Your task to perform on an android device: Open location settings Image 0: 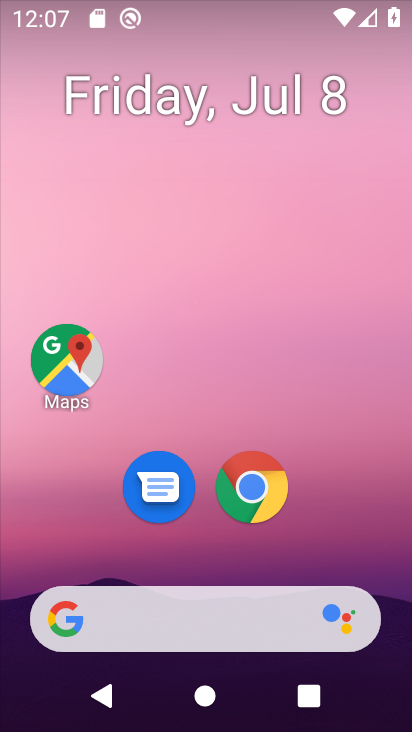
Step 0: drag from (376, 532) to (395, 95)
Your task to perform on an android device: Open location settings Image 1: 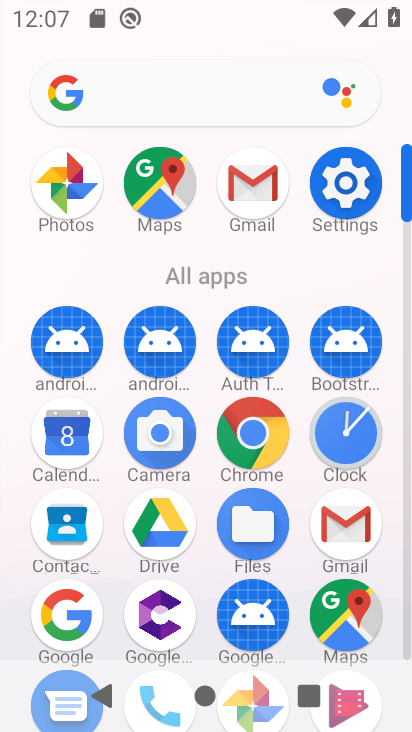
Step 1: click (344, 189)
Your task to perform on an android device: Open location settings Image 2: 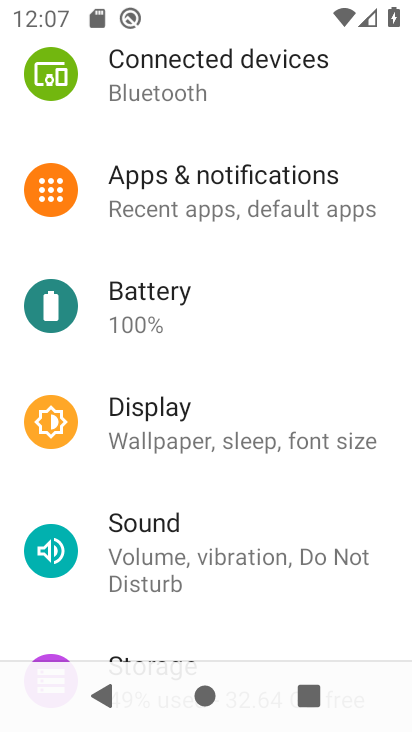
Step 2: drag from (367, 159) to (375, 301)
Your task to perform on an android device: Open location settings Image 3: 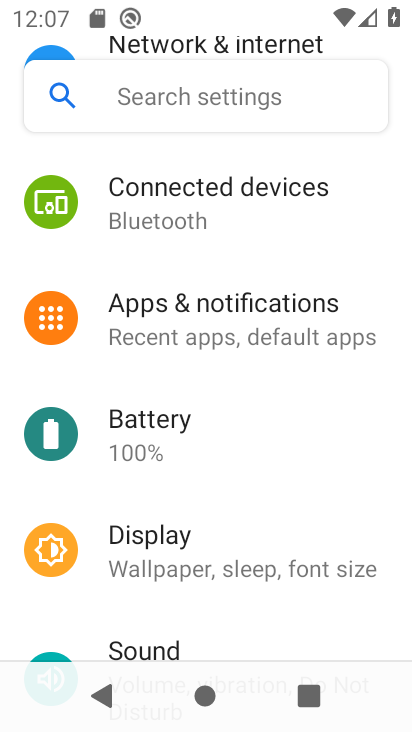
Step 3: drag from (375, 185) to (358, 400)
Your task to perform on an android device: Open location settings Image 4: 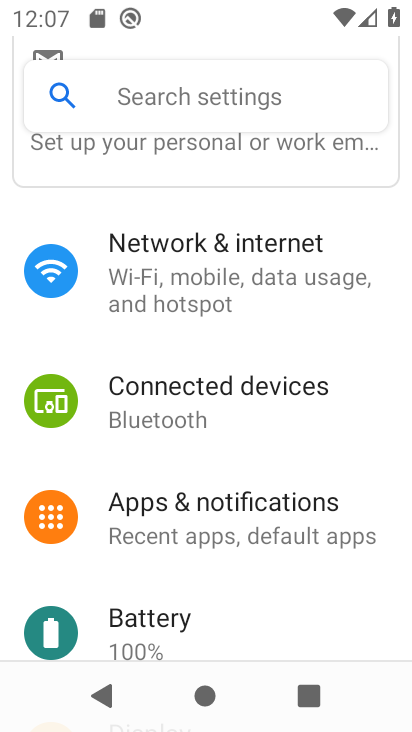
Step 4: drag from (358, 436) to (366, 318)
Your task to perform on an android device: Open location settings Image 5: 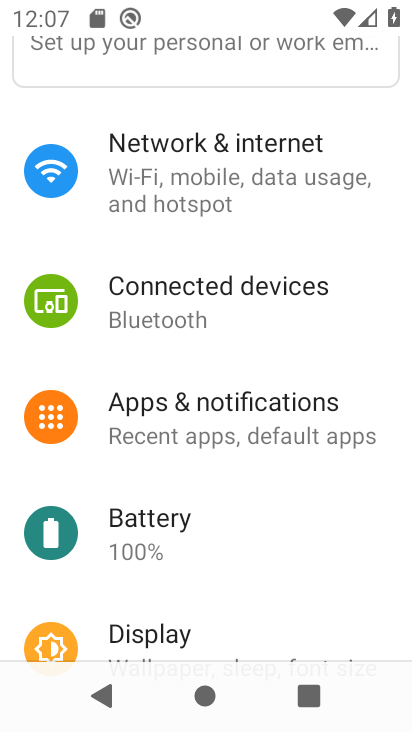
Step 5: drag from (343, 556) to (367, 375)
Your task to perform on an android device: Open location settings Image 6: 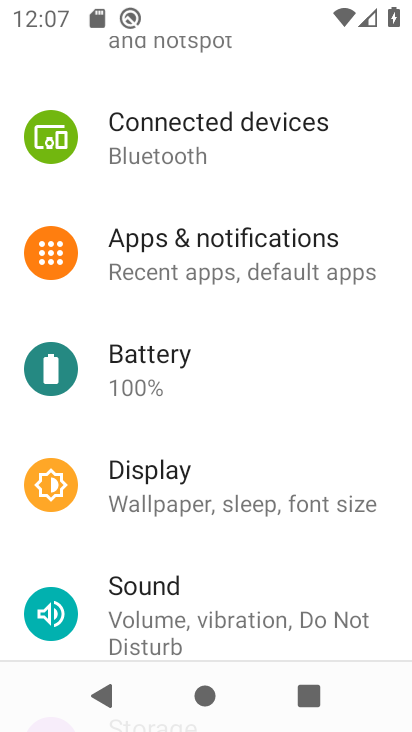
Step 6: drag from (378, 548) to (380, 391)
Your task to perform on an android device: Open location settings Image 7: 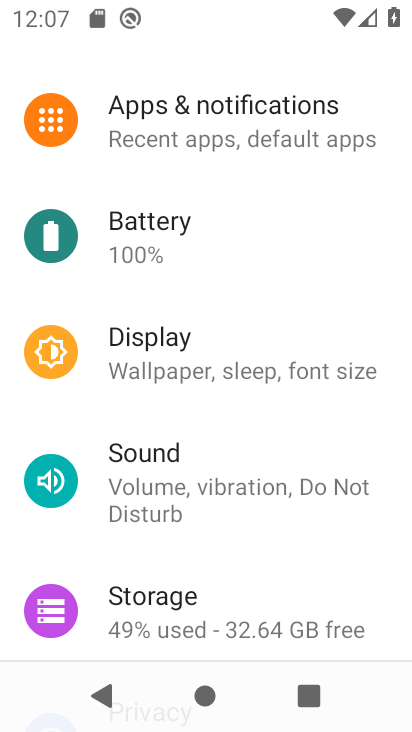
Step 7: drag from (374, 554) to (390, 417)
Your task to perform on an android device: Open location settings Image 8: 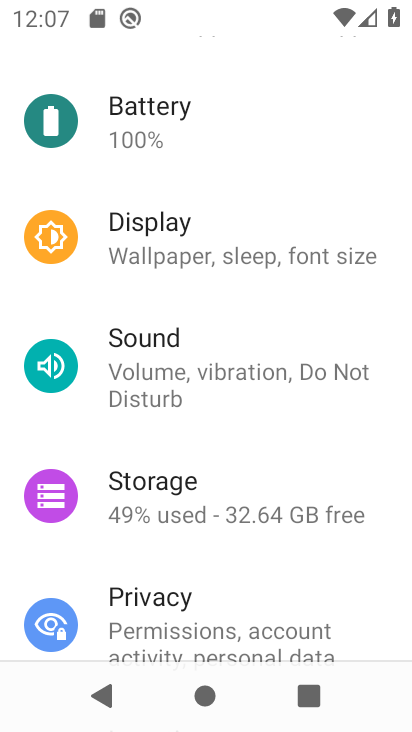
Step 8: drag from (373, 576) to (376, 423)
Your task to perform on an android device: Open location settings Image 9: 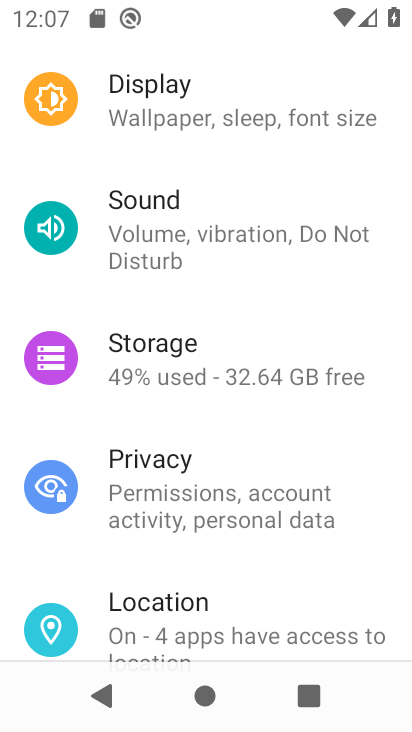
Step 9: drag from (373, 580) to (372, 417)
Your task to perform on an android device: Open location settings Image 10: 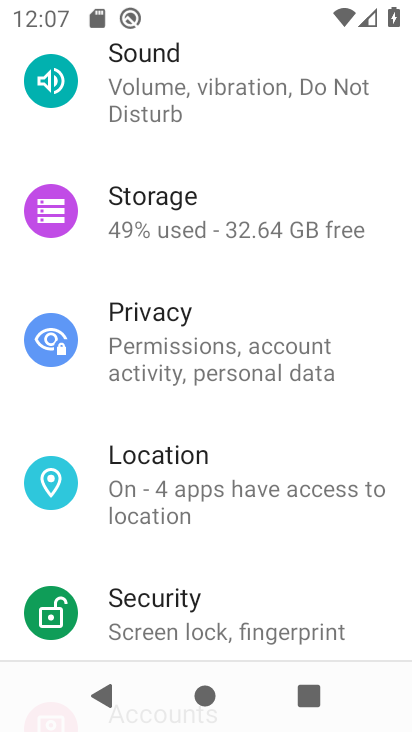
Step 10: drag from (358, 555) to (365, 455)
Your task to perform on an android device: Open location settings Image 11: 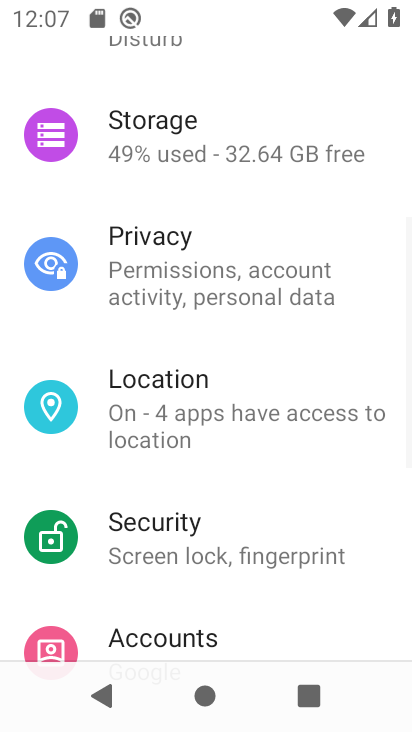
Step 11: click (246, 385)
Your task to perform on an android device: Open location settings Image 12: 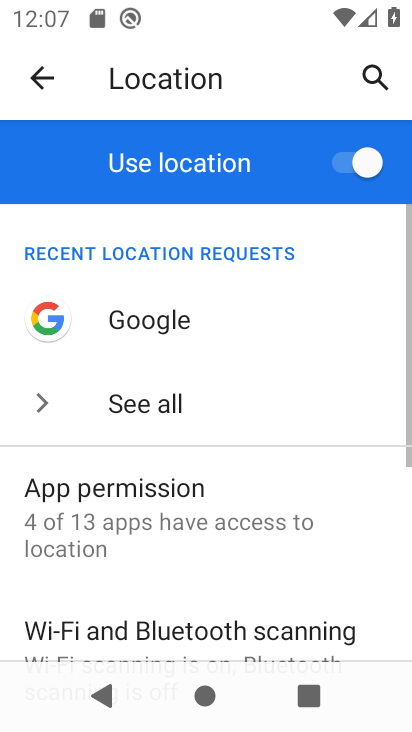
Step 12: task complete